Your task to perform on an android device: Open sound settings Image 0: 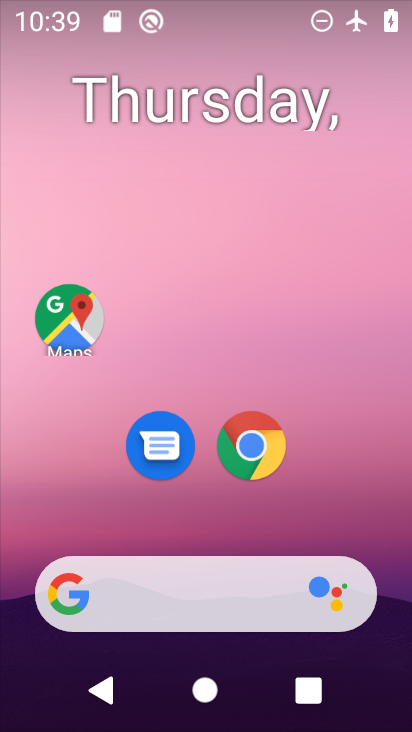
Step 0: drag from (234, 525) to (224, 0)
Your task to perform on an android device: Open sound settings Image 1: 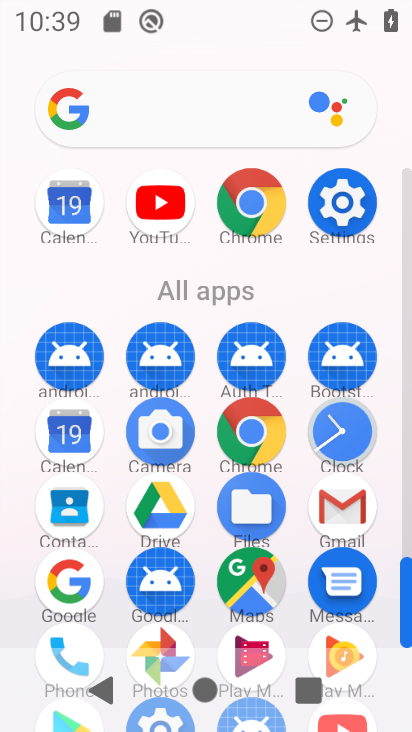
Step 1: click (354, 218)
Your task to perform on an android device: Open sound settings Image 2: 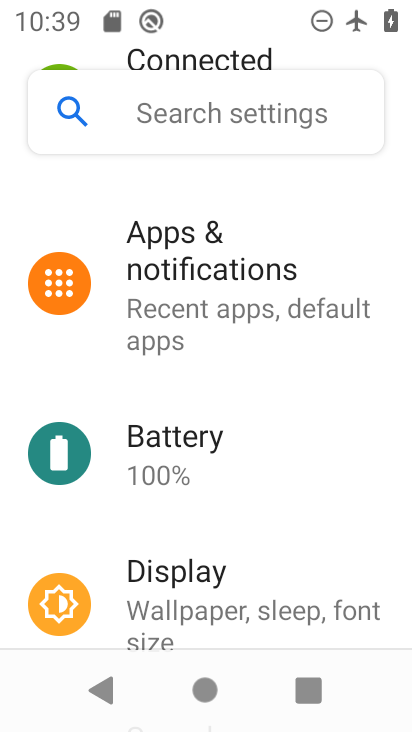
Step 2: drag from (252, 240) to (187, 71)
Your task to perform on an android device: Open sound settings Image 3: 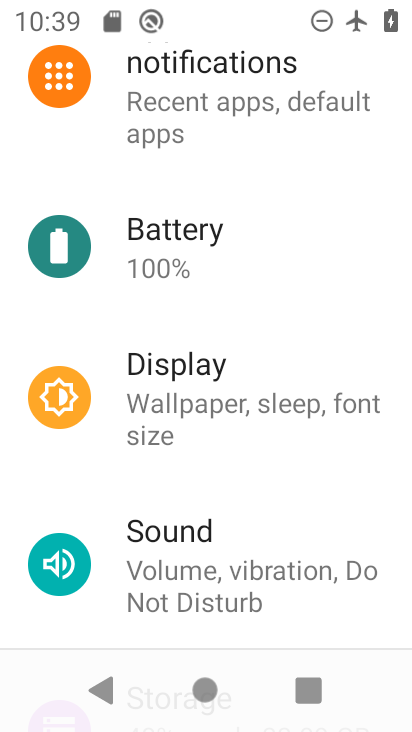
Step 3: click (174, 509)
Your task to perform on an android device: Open sound settings Image 4: 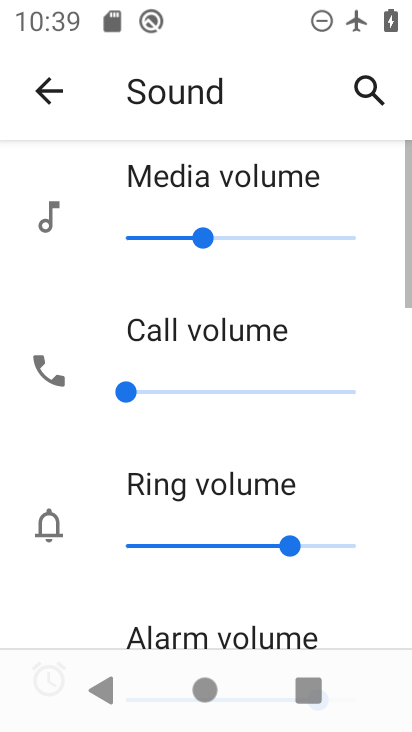
Step 4: task complete